Your task to perform on an android device: Go to settings Image 0: 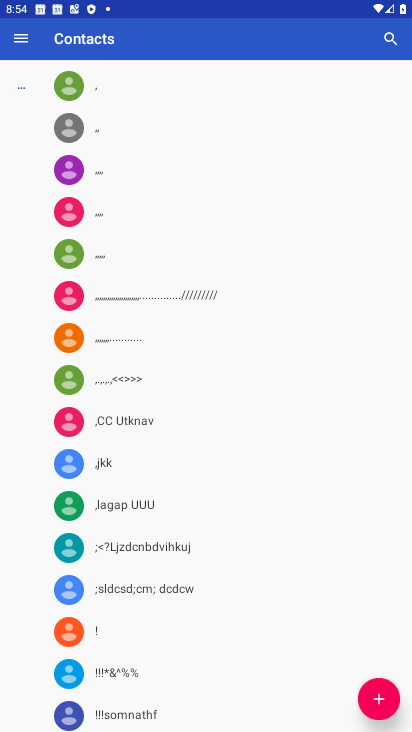
Step 0: press home button
Your task to perform on an android device: Go to settings Image 1: 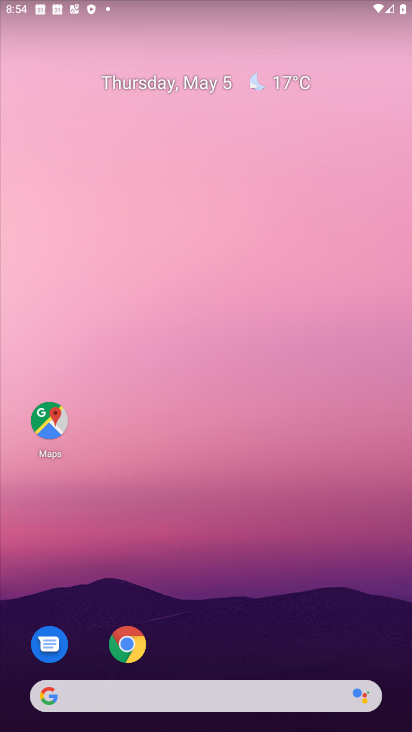
Step 1: drag from (217, 582) to (336, 184)
Your task to perform on an android device: Go to settings Image 2: 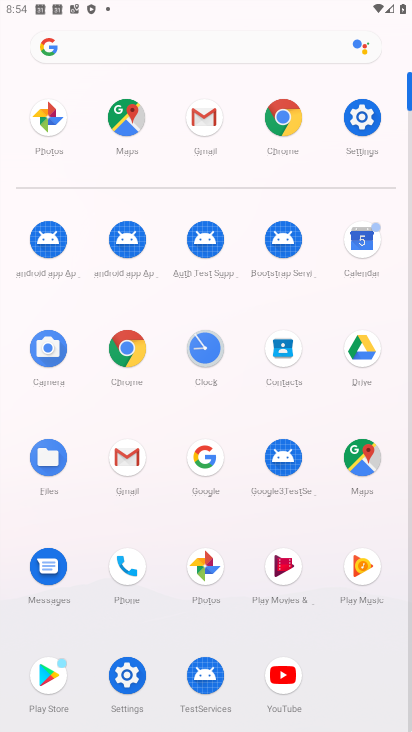
Step 2: click (378, 121)
Your task to perform on an android device: Go to settings Image 3: 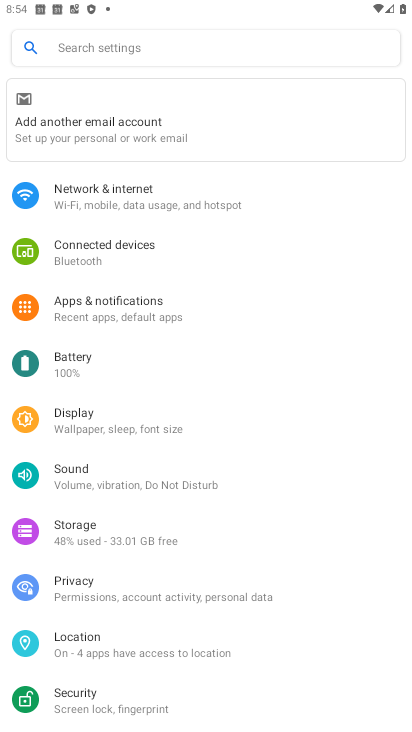
Step 3: task complete